Your task to perform on an android device: Show me recent news Image 0: 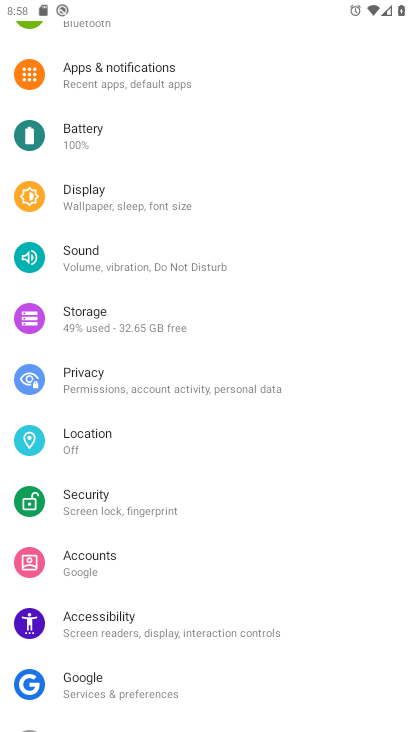
Step 0: press home button
Your task to perform on an android device: Show me recent news Image 1: 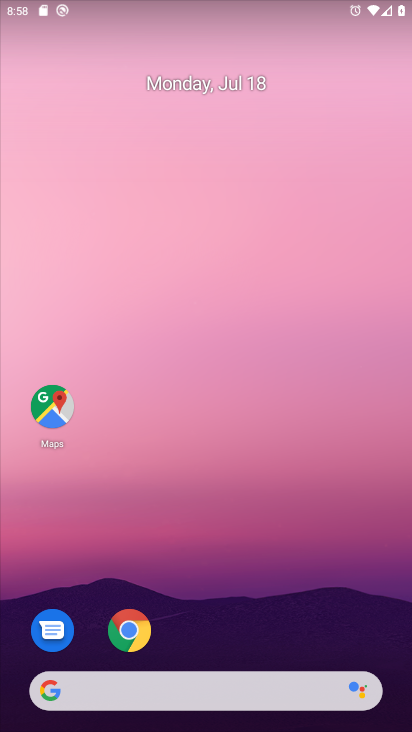
Step 1: drag from (196, 634) to (200, 203)
Your task to perform on an android device: Show me recent news Image 2: 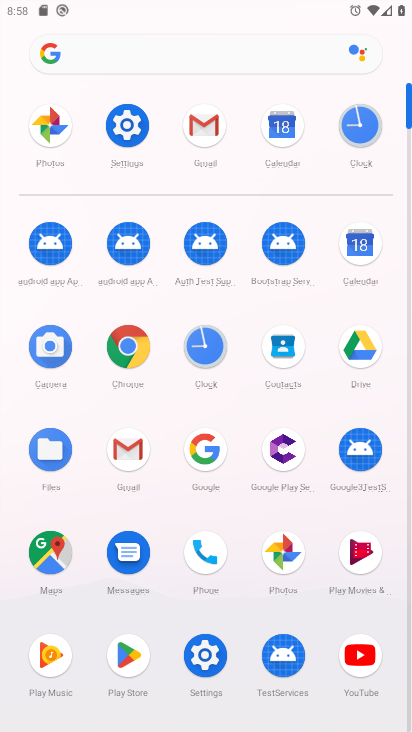
Step 2: click (197, 436)
Your task to perform on an android device: Show me recent news Image 3: 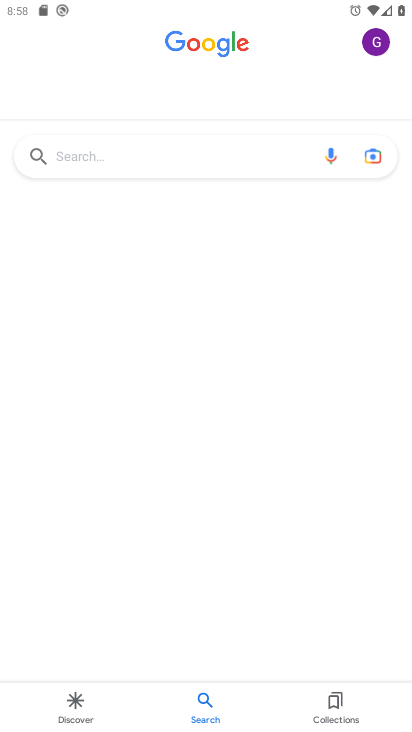
Step 3: click (117, 164)
Your task to perform on an android device: Show me recent news Image 4: 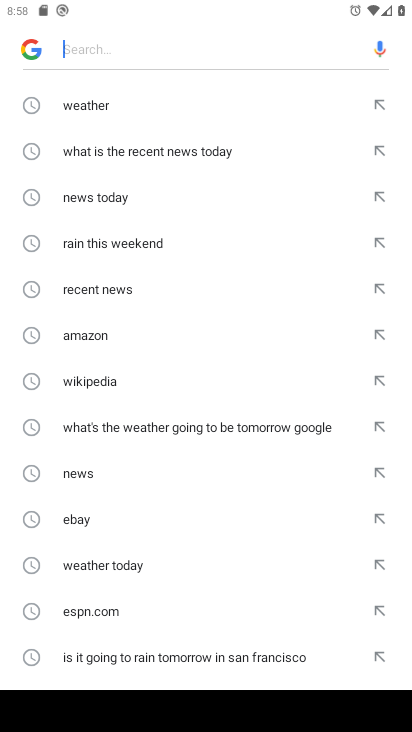
Step 4: click (123, 471)
Your task to perform on an android device: Show me recent news Image 5: 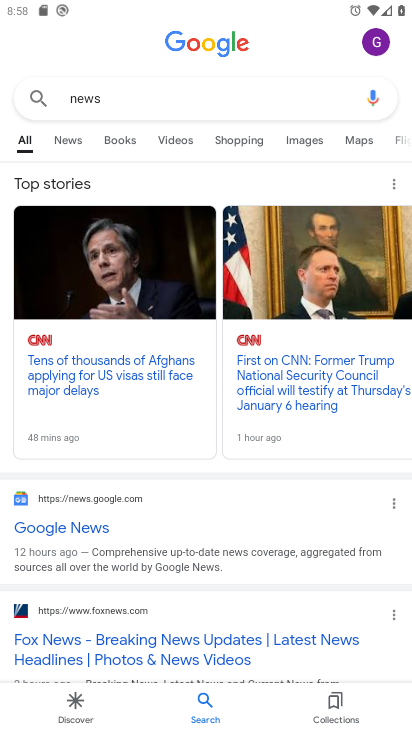
Step 5: click (77, 138)
Your task to perform on an android device: Show me recent news Image 6: 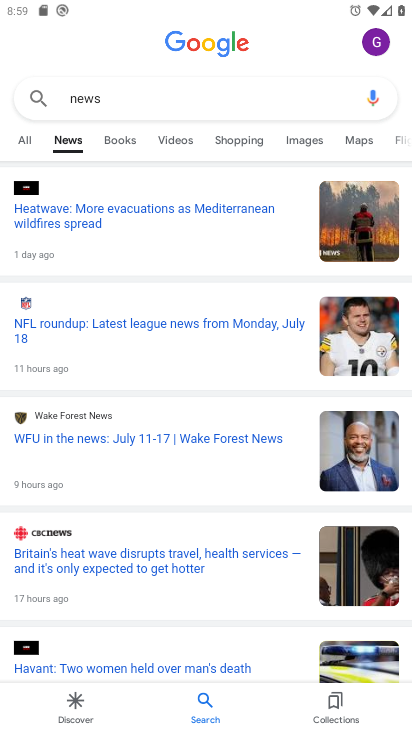
Step 6: task complete